Your task to perform on an android device: check battery use Image 0: 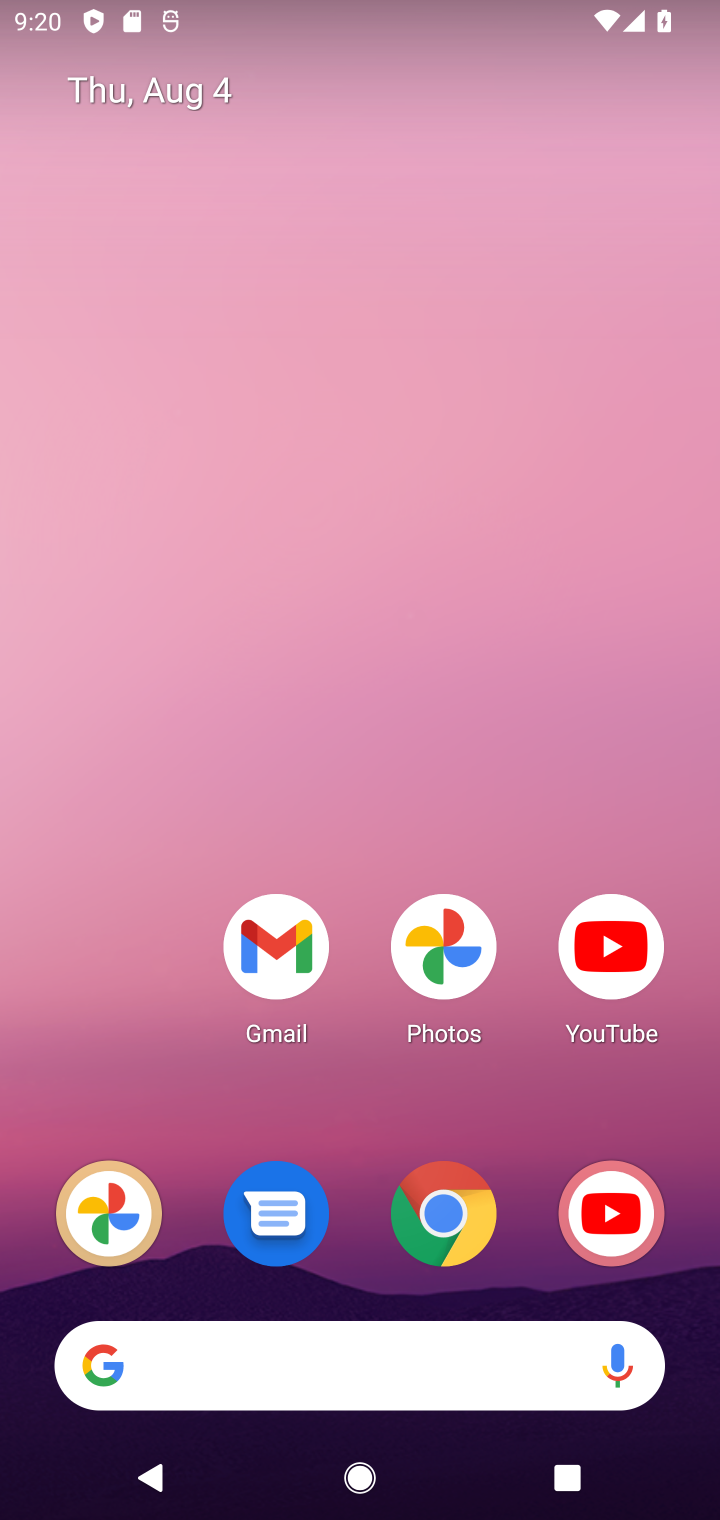
Step 0: press home button
Your task to perform on an android device: check battery use Image 1: 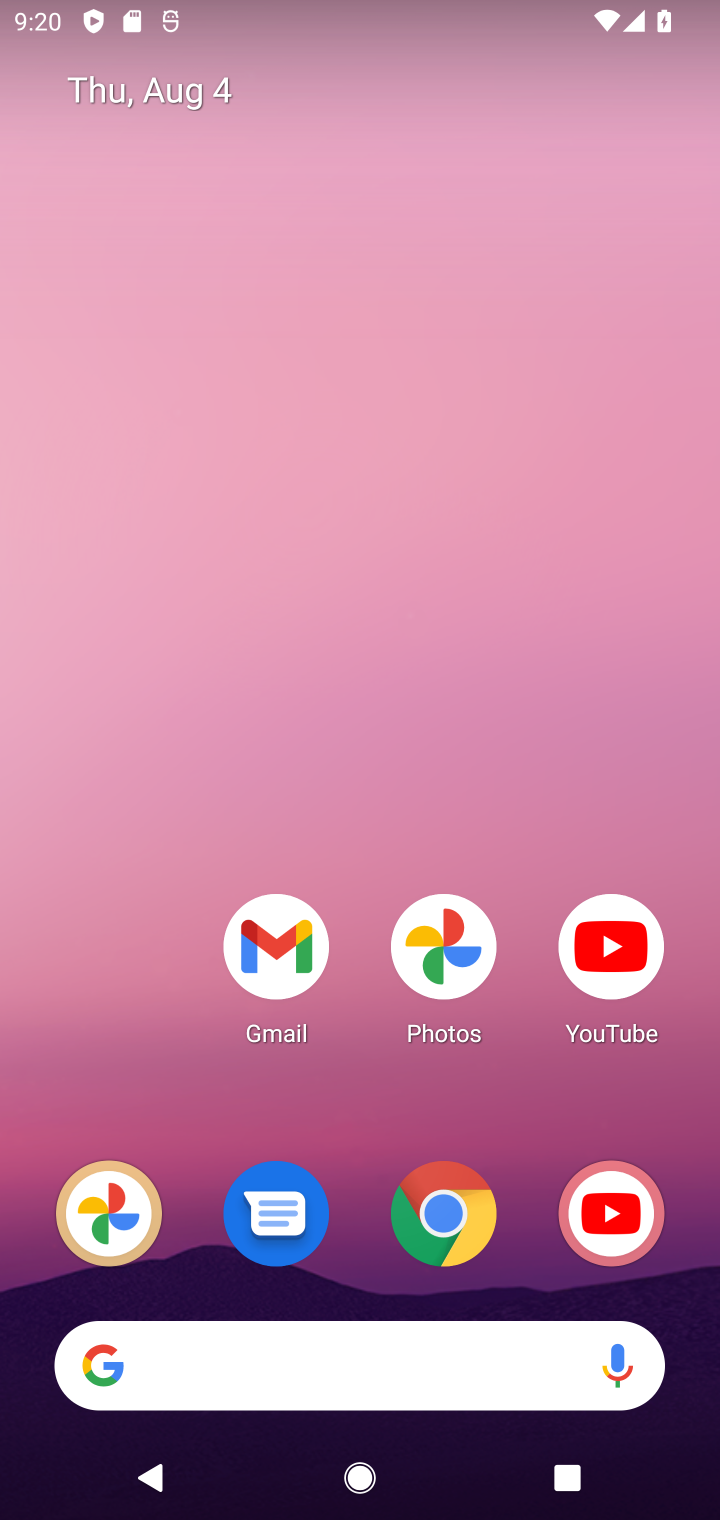
Step 1: drag from (369, 1130) to (449, 20)
Your task to perform on an android device: check battery use Image 2: 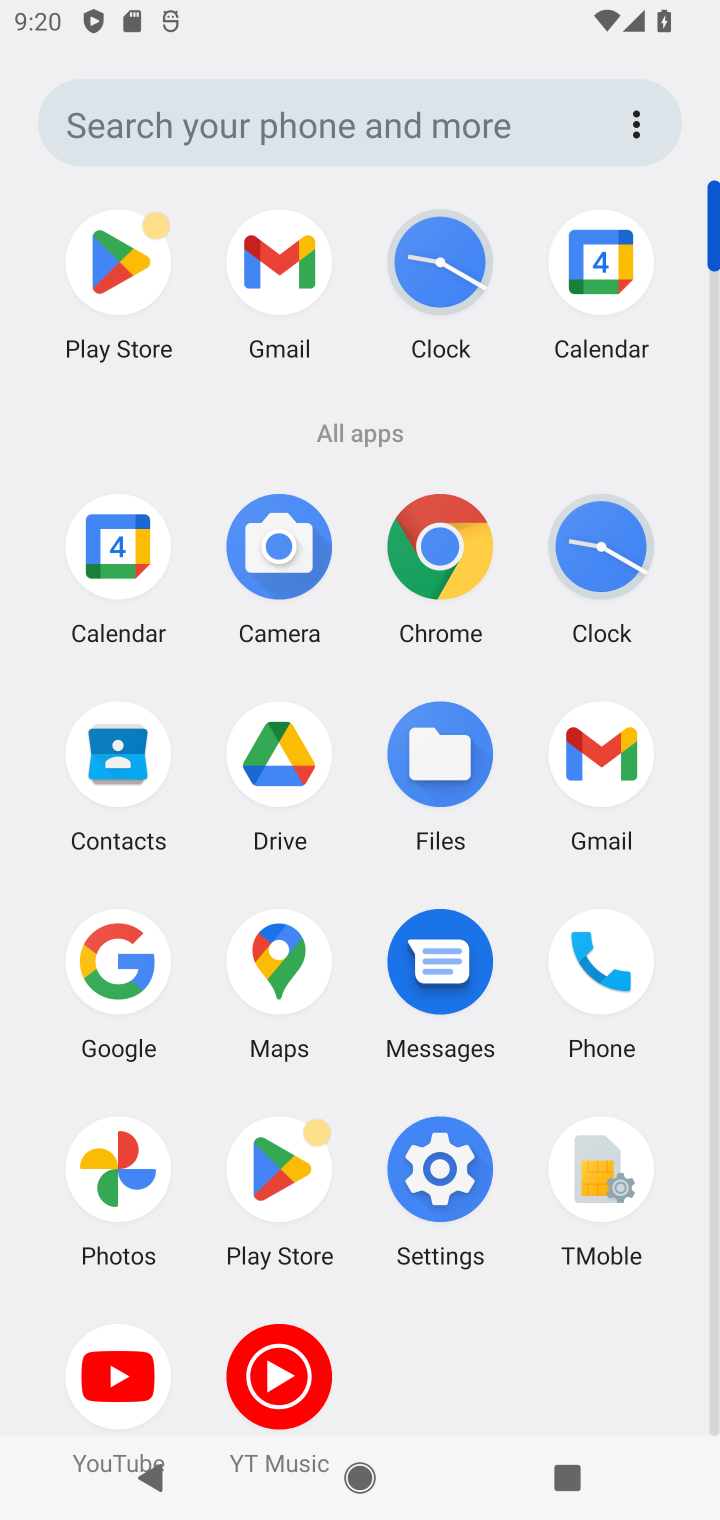
Step 2: click (446, 1155)
Your task to perform on an android device: check battery use Image 3: 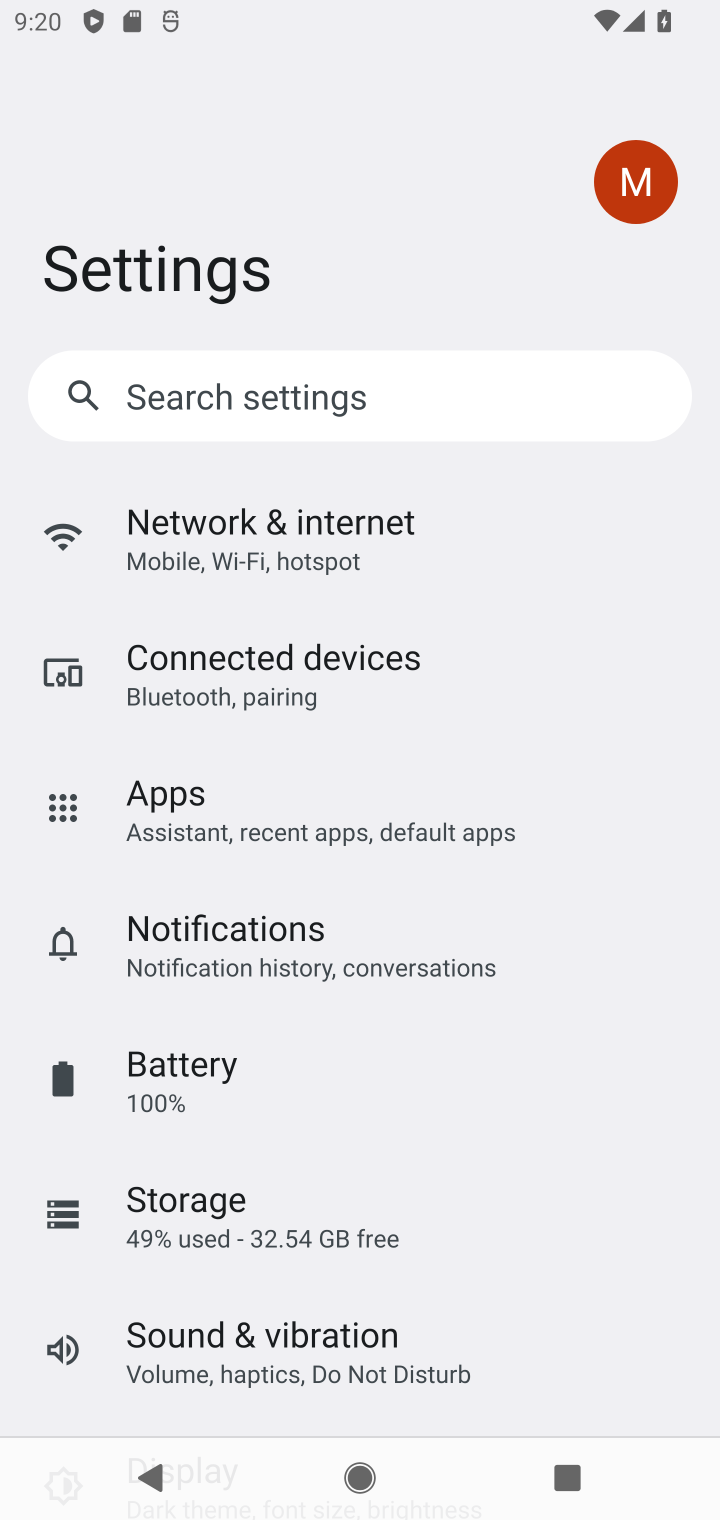
Step 3: click (236, 1071)
Your task to perform on an android device: check battery use Image 4: 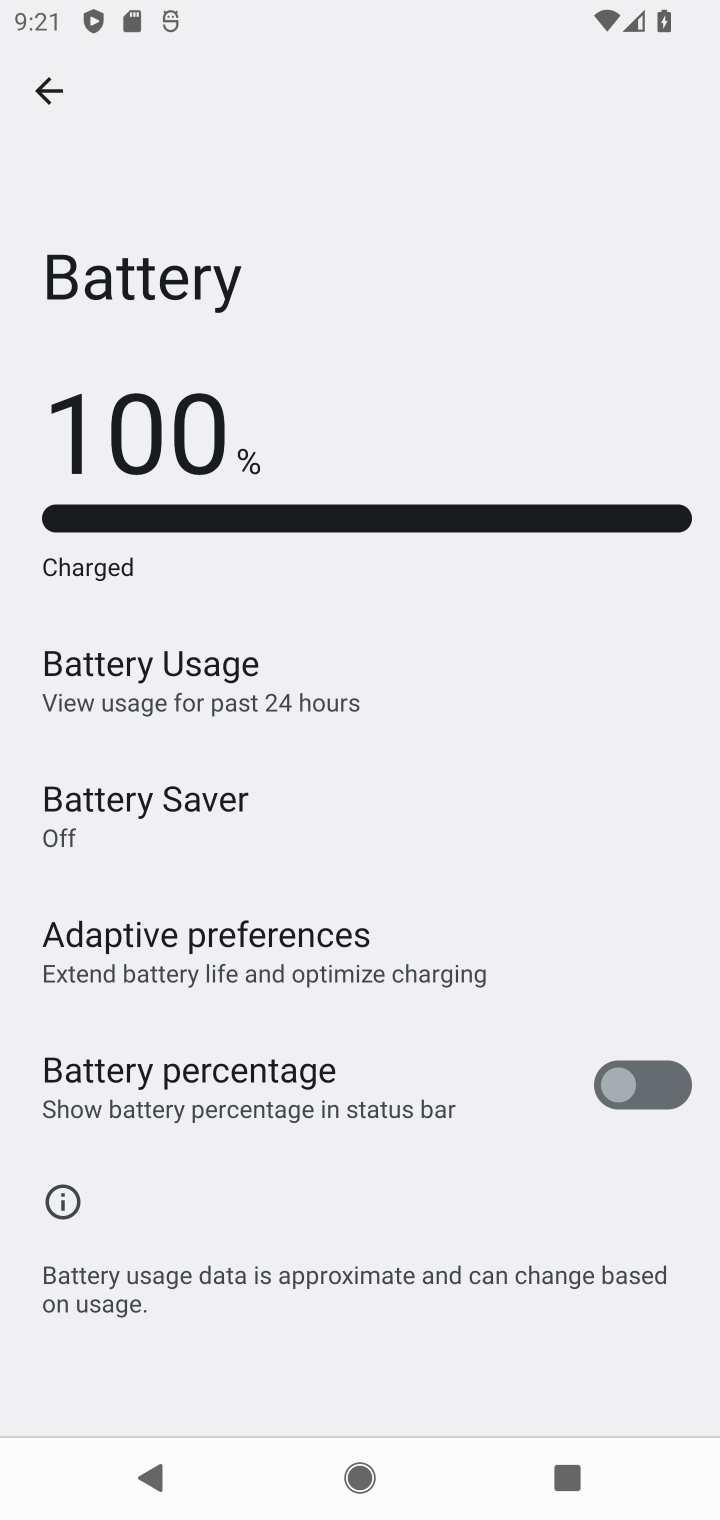
Step 4: drag from (303, 1026) to (326, 466)
Your task to perform on an android device: check battery use Image 5: 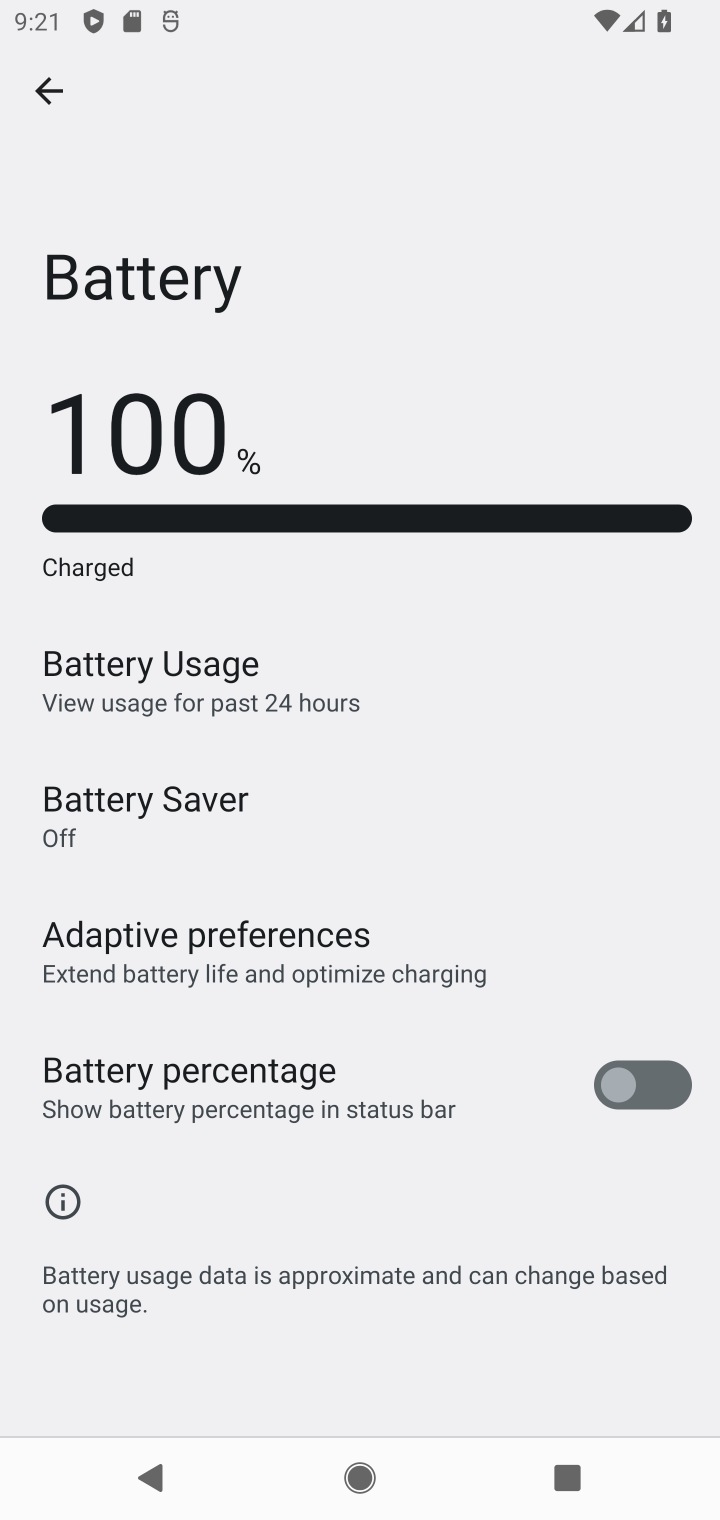
Step 5: click (215, 681)
Your task to perform on an android device: check battery use Image 6: 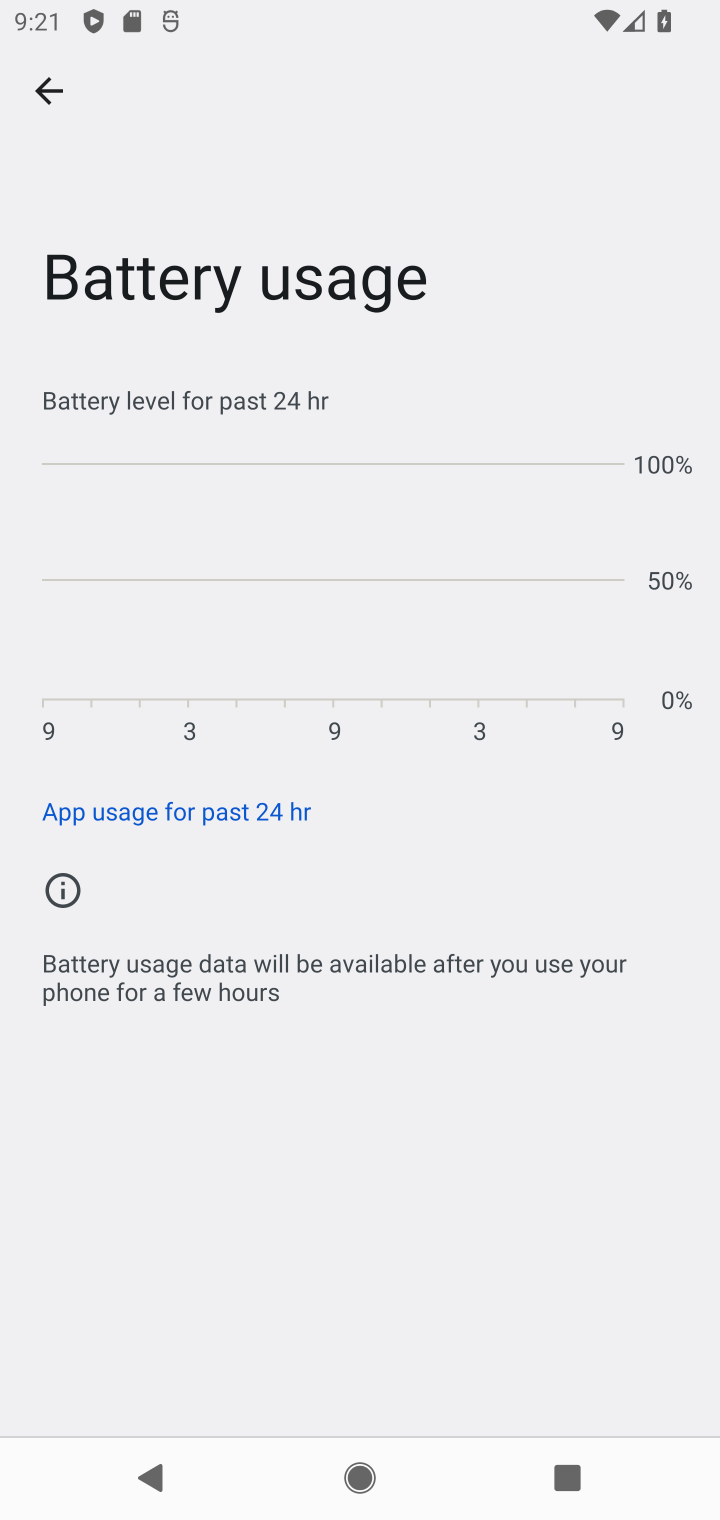
Step 6: task complete